Your task to perform on an android device: Search for Italian restaurants on Maps Image 0: 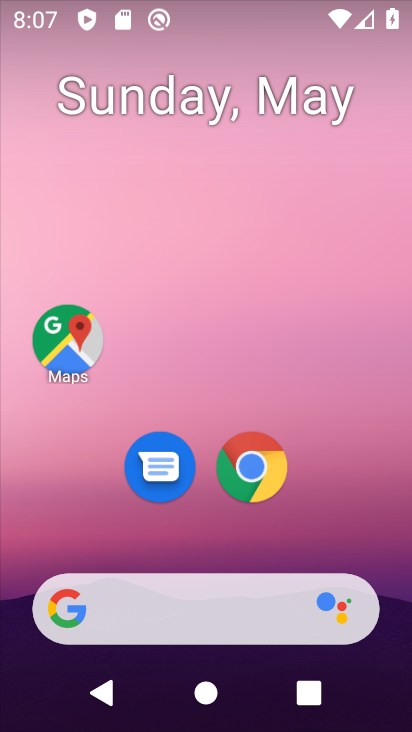
Step 0: click (81, 337)
Your task to perform on an android device: Search for Italian restaurants on Maps Image 1: 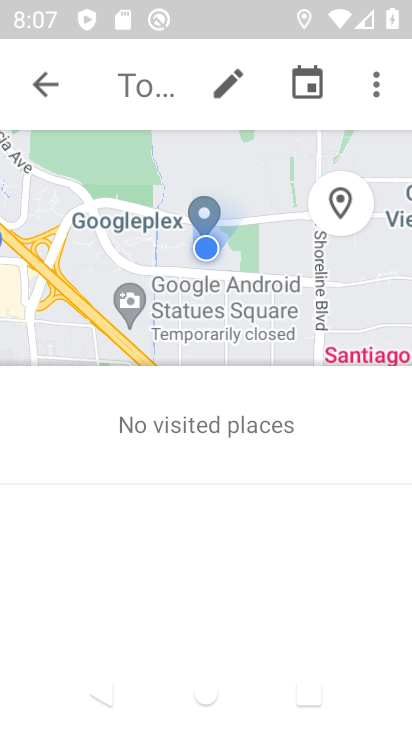
Step 1: click (36, 100)
Your task to perform on an android device: Search for Italian restaurants on Maps Image 2: 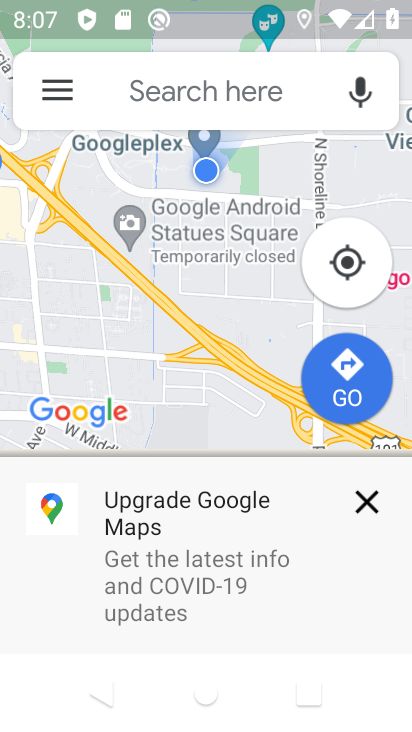
Step 2: click (174, 79)
Your task to perform on an android device: Search for Italian restaurants on Maps Image 3: 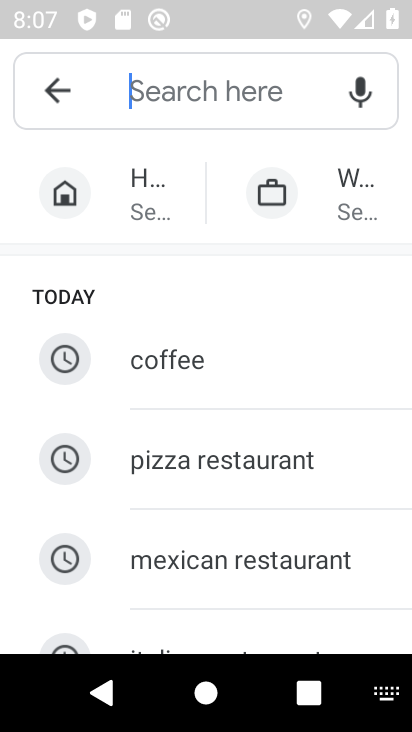
Step 3: drag from (253, 359) to (264, 246)
Your task to perform on an android device: Search for Italian restaurants on Maps Image 4: 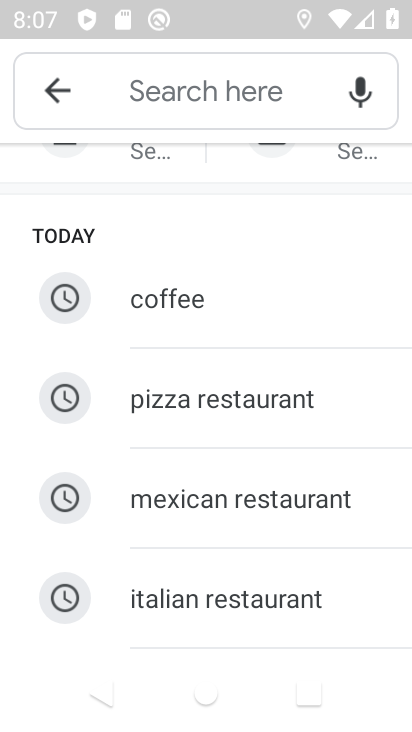
Step 4: click (189, 605)
Your task to perform on an android device: Search for Italian restaurants on Maps Image 5: 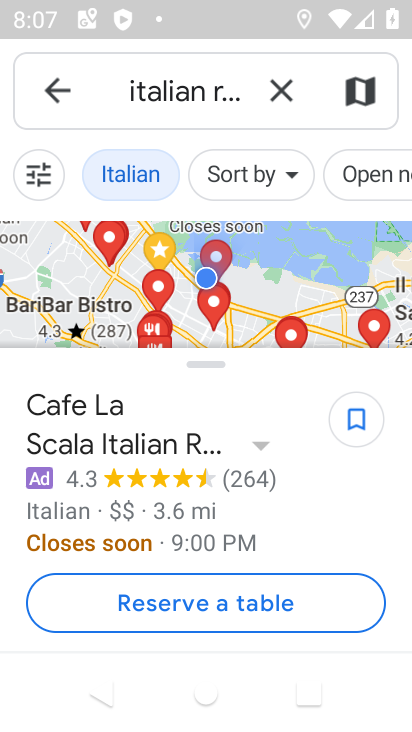
Step 5: task complete